Your task to perform on an android device: Go to Reddit.com Image 0: 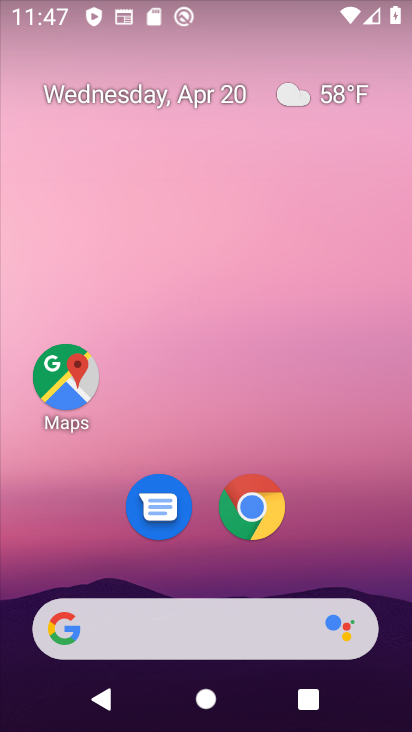
Step 0: drag from (343, 541) to (347, 173)
Your task to perform on an android device: Go to Reddit.com Image 1: 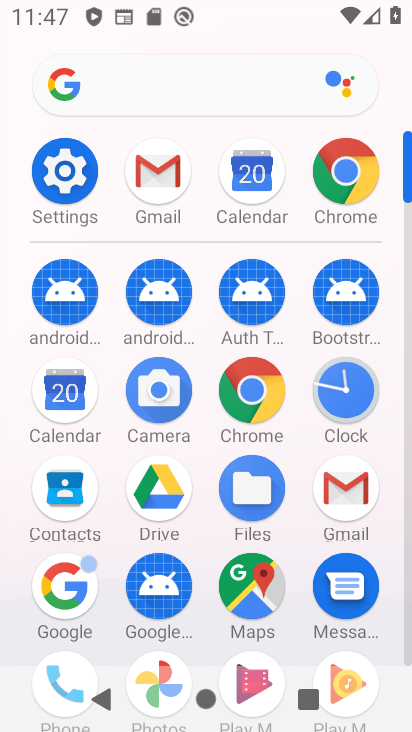
Step 1: click (252, 386)
Your task to perform on an android device: Go to Reddit.com Image 2: 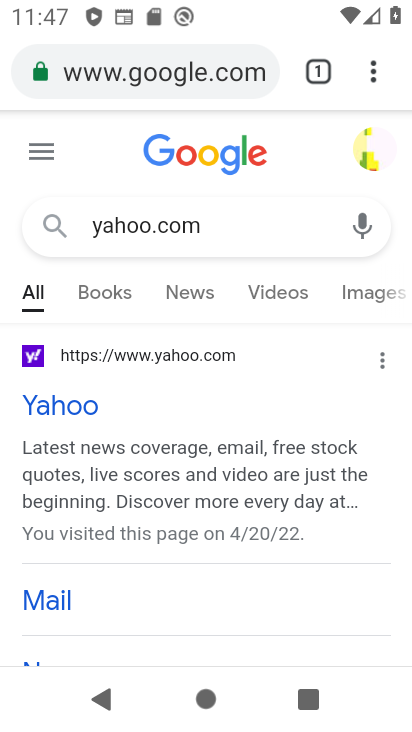
Step 2: click (253, 228)
Your task to perform on an android device: Go to Reddit.com Image 3: 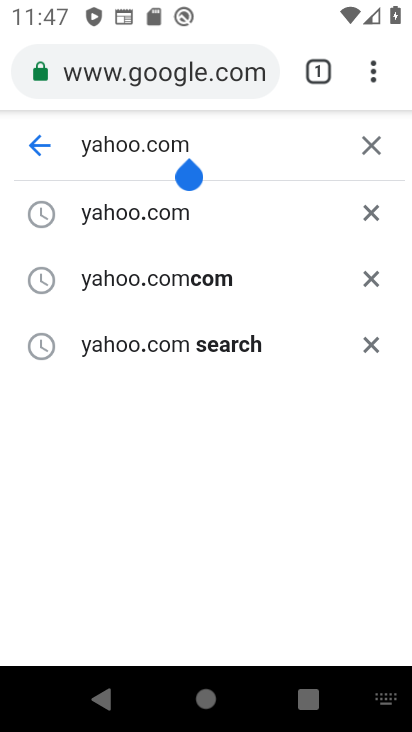
Step 3: click (369, 146)
Your task to perform on an android device: Go to Reddit.com Image 4: 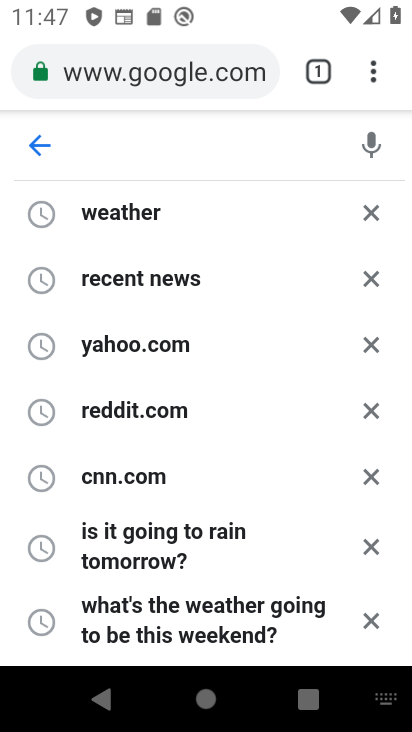
Step 4: click (127, 413)
Your task to perform on an android device: Go to Reddit.com Image 5: 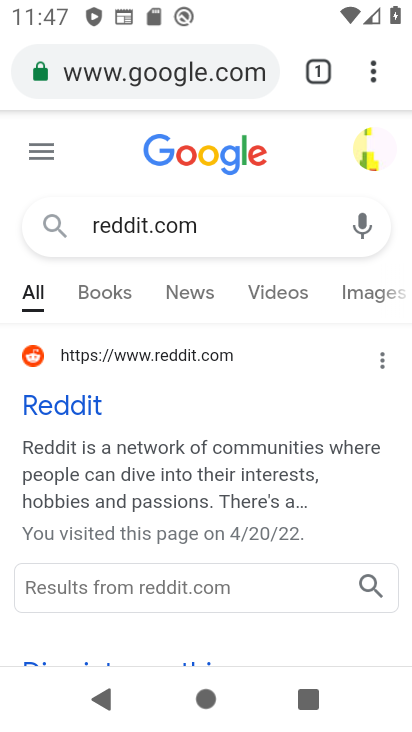
Step 5: task complete